Your task to perform on an android device: turn pop-ups on in chrome Image 0: 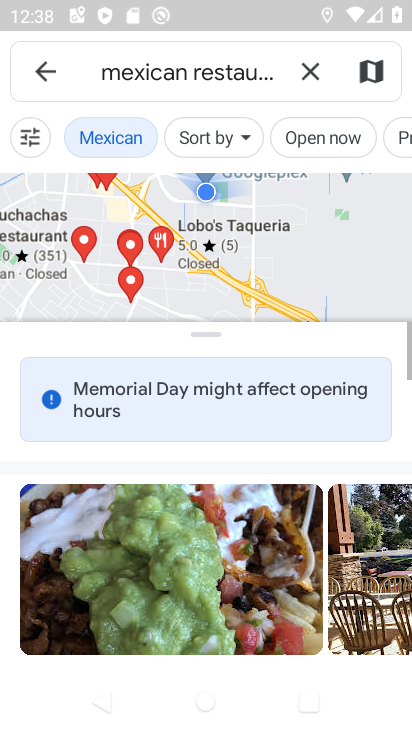
Step 0: press home button
Your task to perform on an android device: turn pop-ups on in chrome Image 1: 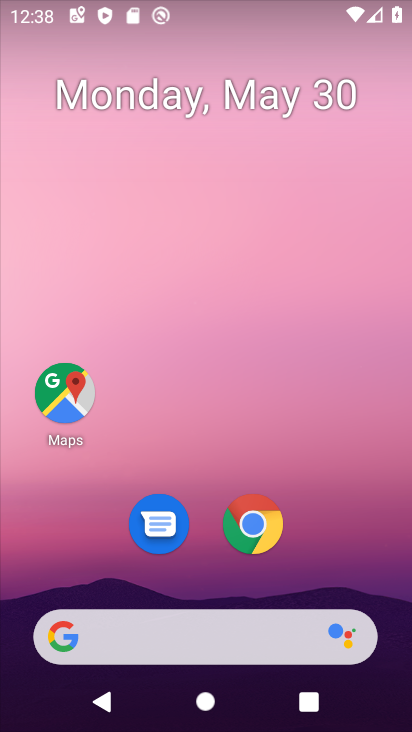
Step 1: click (249, 510)
Your task to perform on an android device: turn pop-ups on in chrome Image 2: 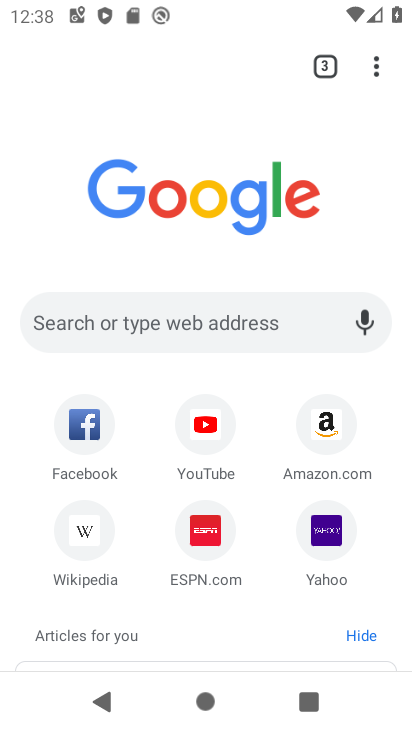
Step 2: click (378, 67)
Your task to perform on an android device: turn pop-ups on in chrome Image 3: 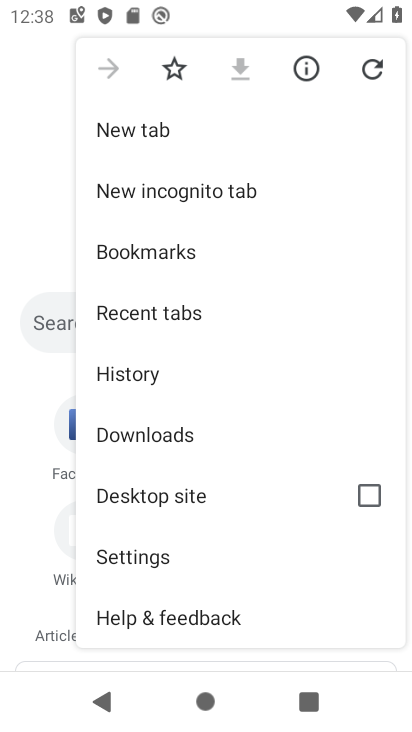
Step 3: click (234, 554)
Your task to perform on an android device: turn pop-ups on in chrome Image 4: 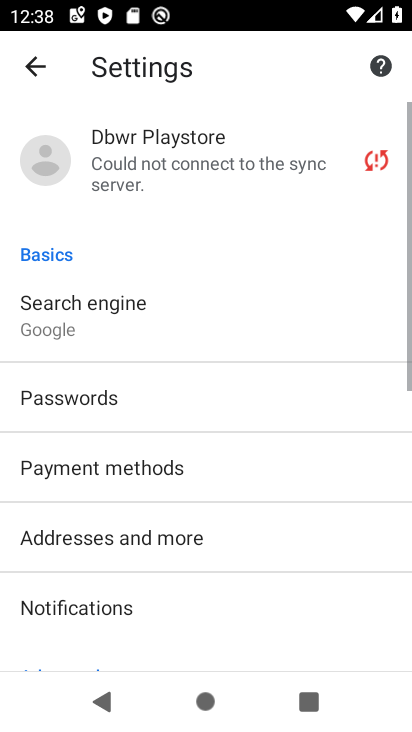
Step 4: drag from (261, 503) to (327, 121)
Your task to perform on an android device: turn pop-ups on in chrome Image 5: 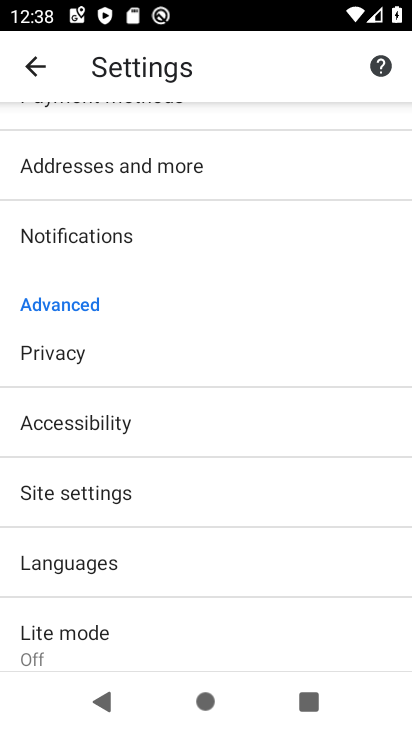
Step 5: click (266, 477)
Your task to perform on an android device: turn pop-ups on in chrome Image 6: 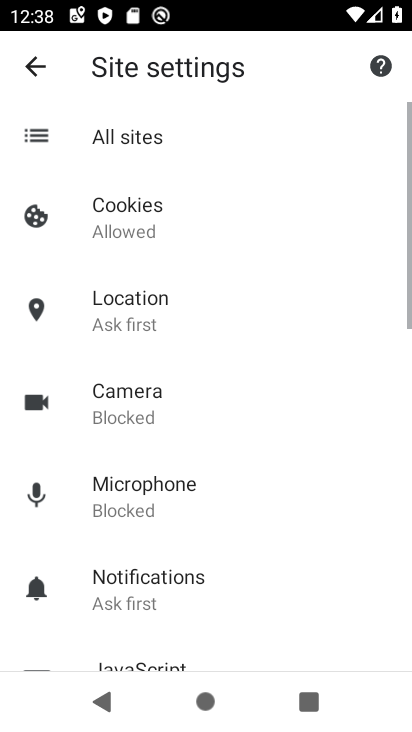
Step 6: drag from (264, 530) to (287, 188)
Your task to perform on an android device: turn pop-ups on in chrome Image 7: 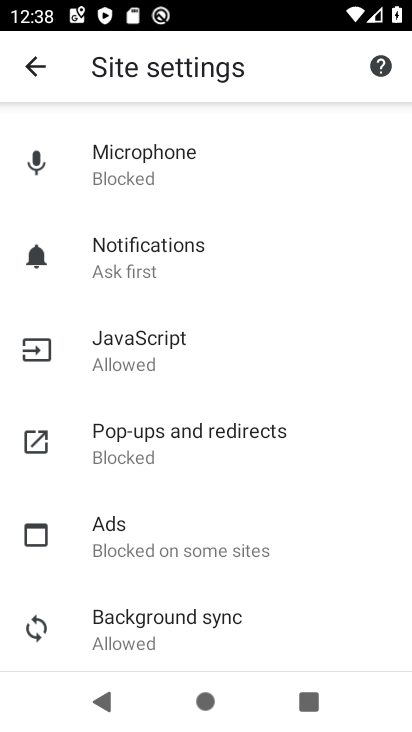
Step 7: click (221, 433)
Your task to perform on an android device: turn pop-ups on in chrome Image 8: 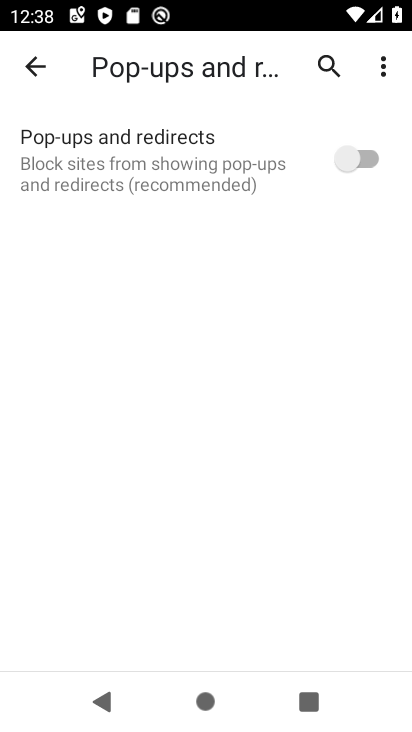
Step 8: click (357, 154)
Your task to perform on an android device: turn pop-ups on in chrome Image 9: 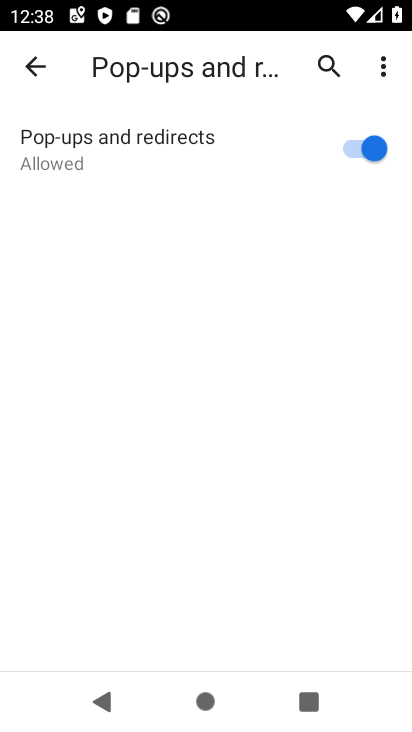
Step 9: task complete